Your task to perform on an android device: change text size in settings app Image 0: 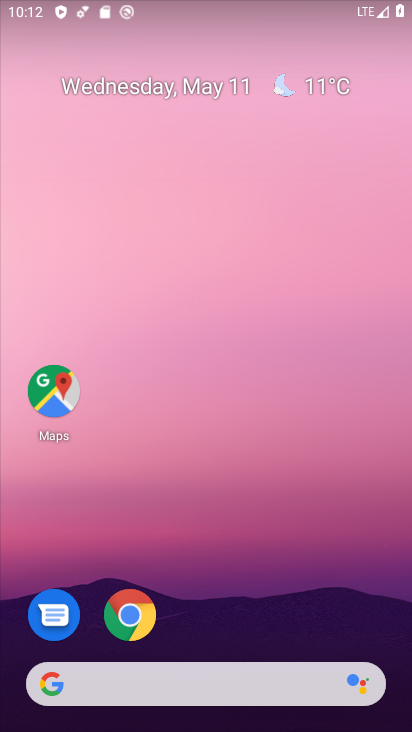
Step 0: drag from (270, 561) to (241, 118)
Your task to perform on an android device: change text size in settings app Image 1: 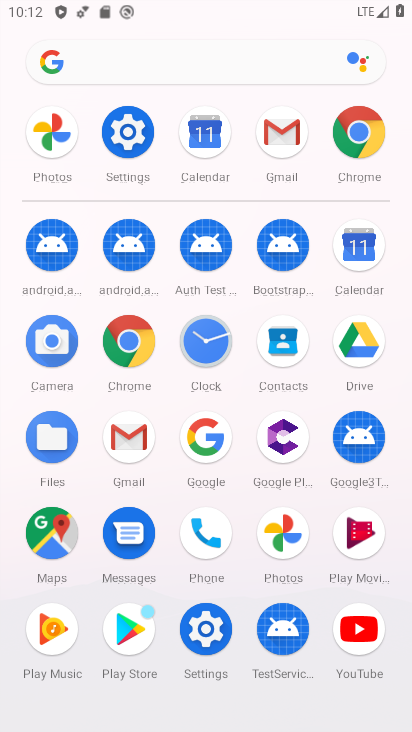
Step 1: click (122, 130)
Your task to perform on an android device: change text size in settings app Image 2: 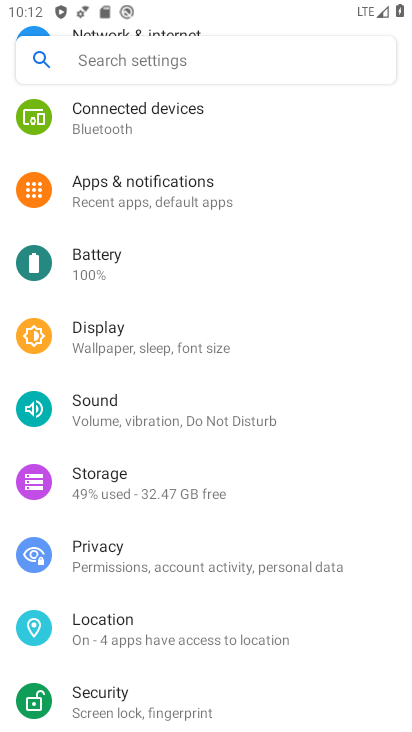
Step 2: drag from (212, 579) to (309, 173)
Your task to perform on an android device: change text size in settings app Image 3: 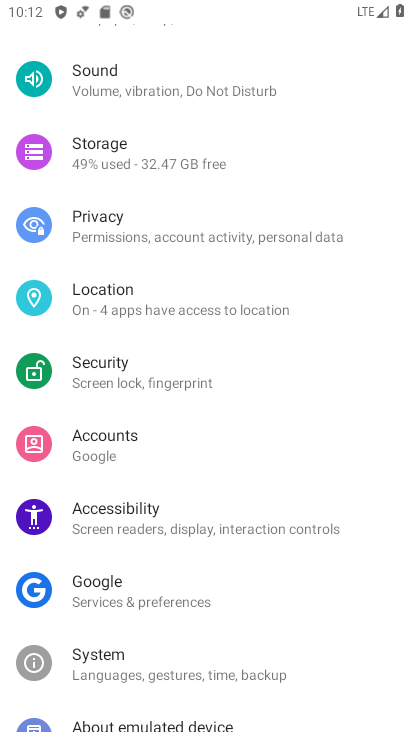
Step 3: drag from (193, 600) to (222, 310)
Your task to perform on an android device: change text size in settings app Image 4: 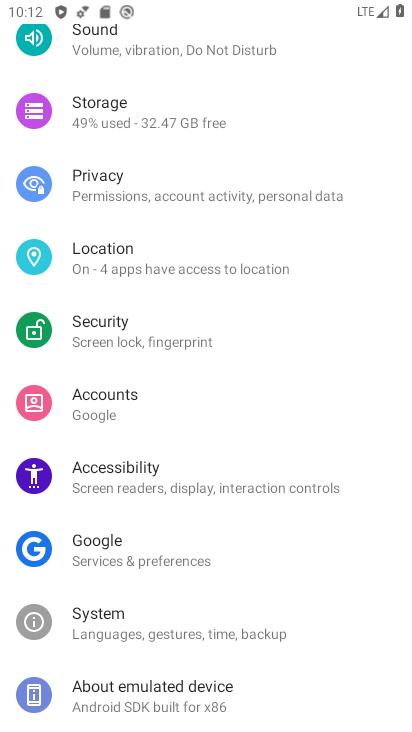
Step 4: click (97, 623)
Your task to perform on an android device: change text size in settings app Image 5: 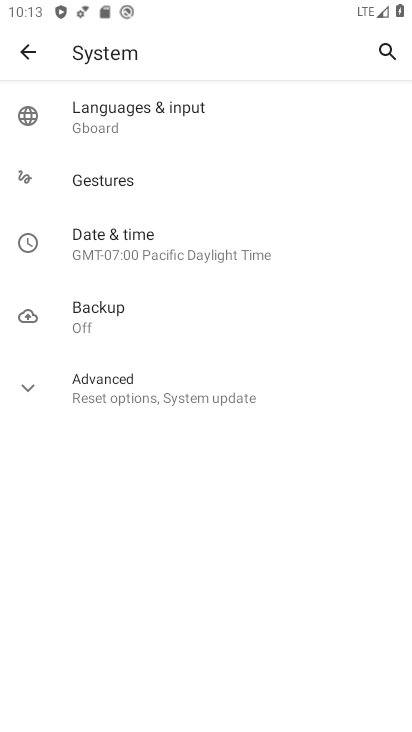
Step 5: click (119, 122)
Your task to perform on an android device: change text size in settings app Image 6: 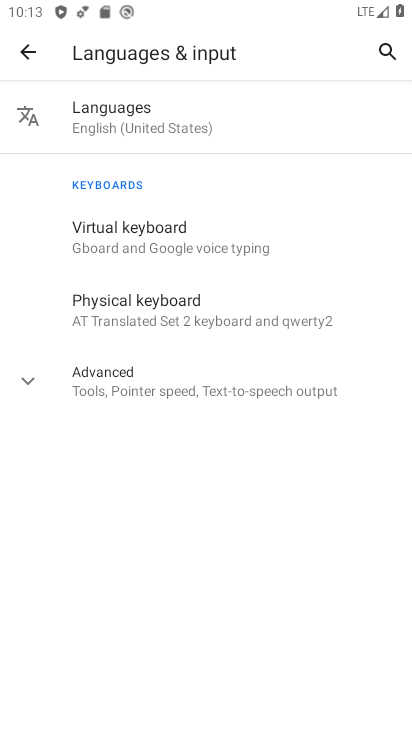
Step 6: click (141, 232)
Your task to perform on an android device: change text size in settings app Image 7: 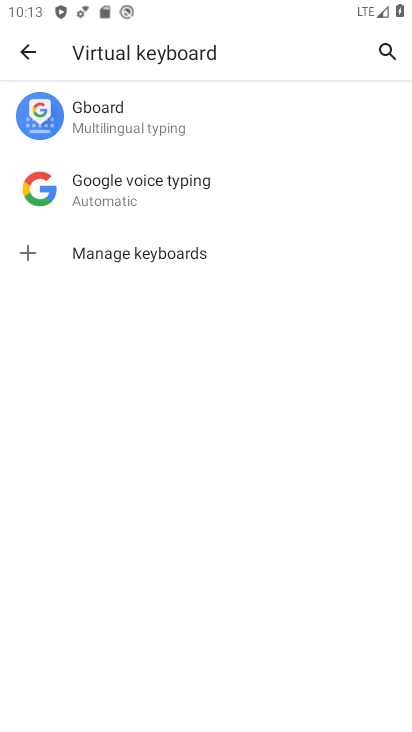
Step 7: click (150, 130)
Your task to perform on an android device: change text size in settings app Image 8: 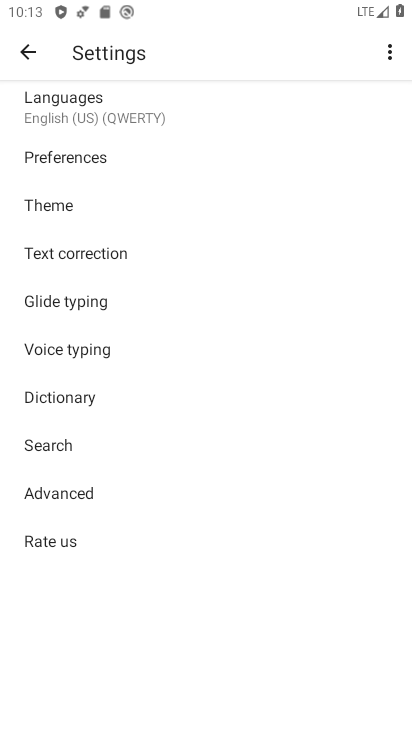
Step 8: click (73, 200)
Your task to perform on an android device: change text size in settings app Image 9: 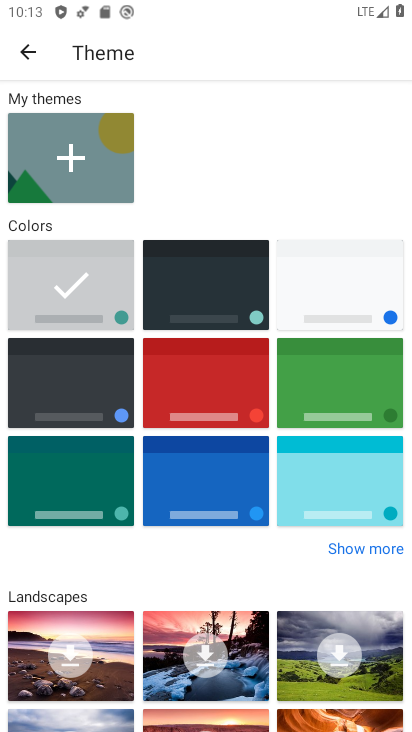
Step 9: click (19, 48)
Your task to perform on an android device: change text size in settings app Image 10: 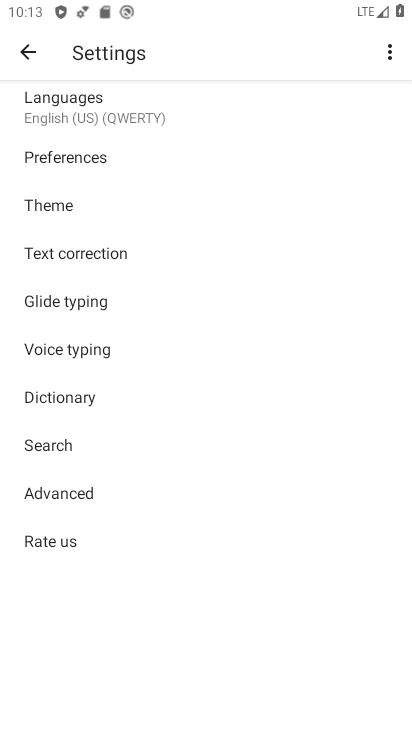
Step 10: click (19, 48)
Your task to perform on an android device: change text size in settings app Image 11: 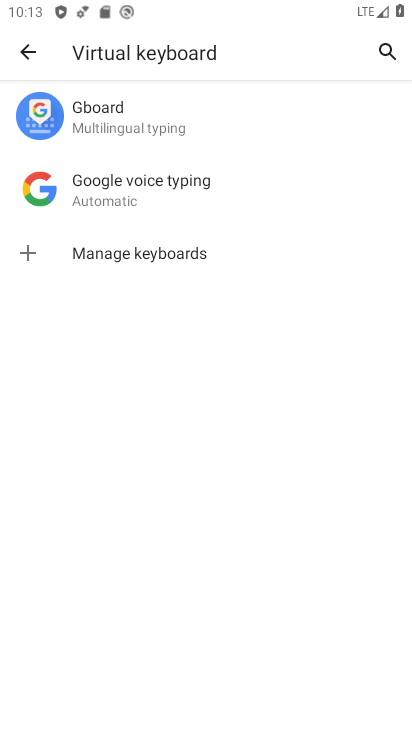
Step 11: click (19, 48)
Your task to perform on an android device: change text size in settings app Image 12: 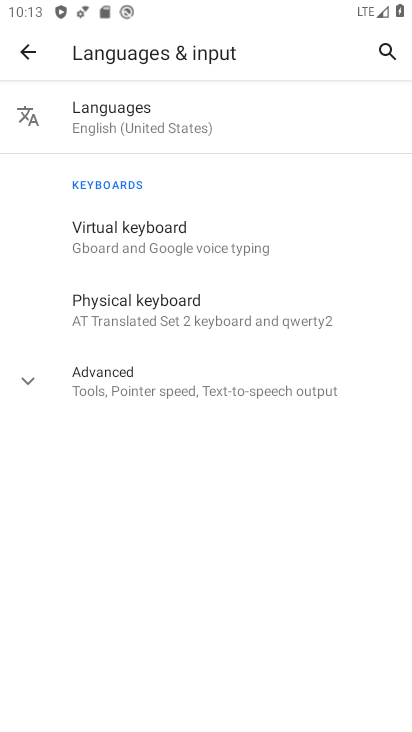
Step 12: click (25, 58)
Your task to perform on an android device: change text size in settings app Image 13: 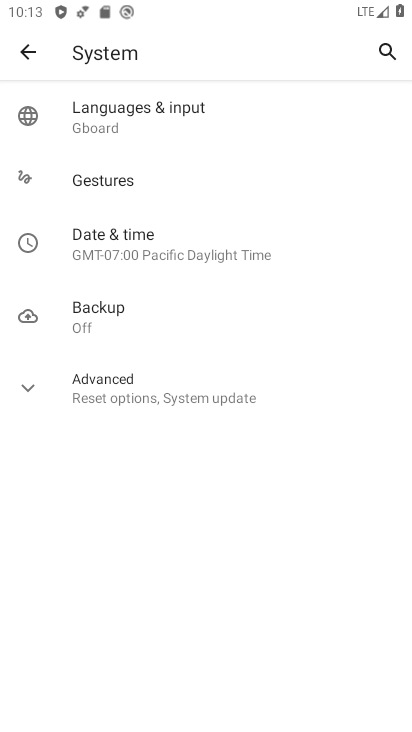
Step 13: click (85, 389)
Your task to perform on an android device: change text size in settings app Image 14: 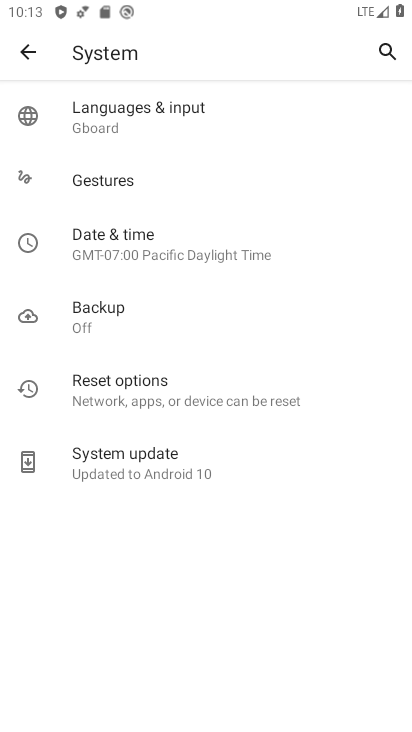
Step 14: click (26, 50)
Your task to perform on an android device: change text size in settings app Image 15: 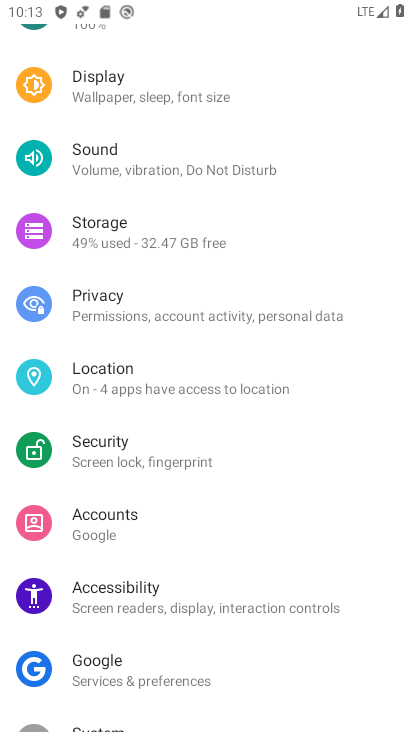
Step 15: click (107, 84)
Your task to perform on an android device: change text size in settings app Image 16: 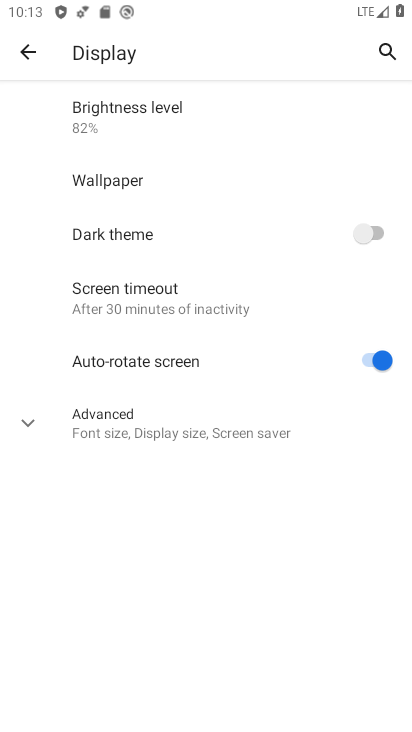
Step 16: click (114, 423)
Your task to perform on an android device: change text size in settings app Image 17: 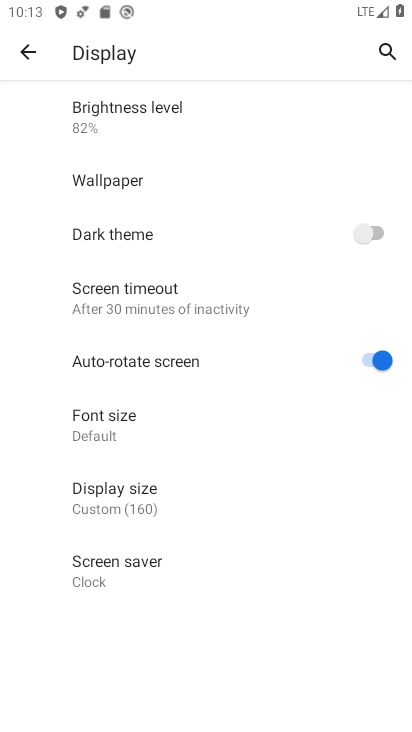
Step 17: click (92, 436)
Your task to perform on an android device: change text size in settings app Image 18: 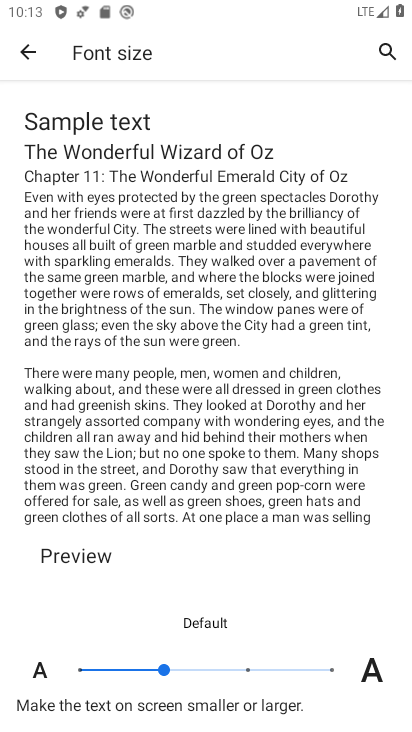
Step 18: click (91, 669)
Your task to perform on an android device: change text size in settings app Image 19: 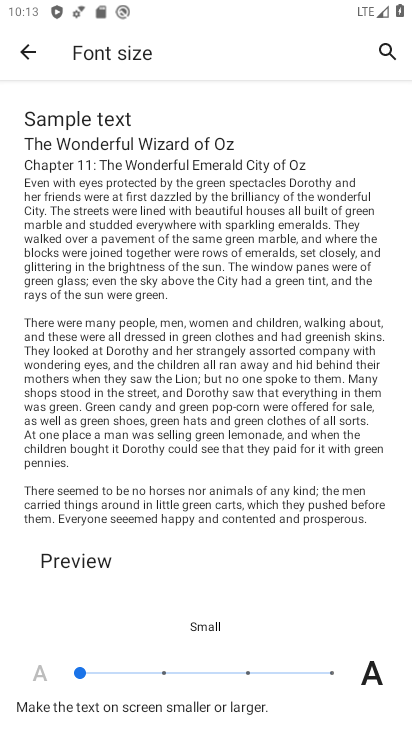
Step 19: task complete